Your task to perform on an android device: change text size in settings app Image 0: 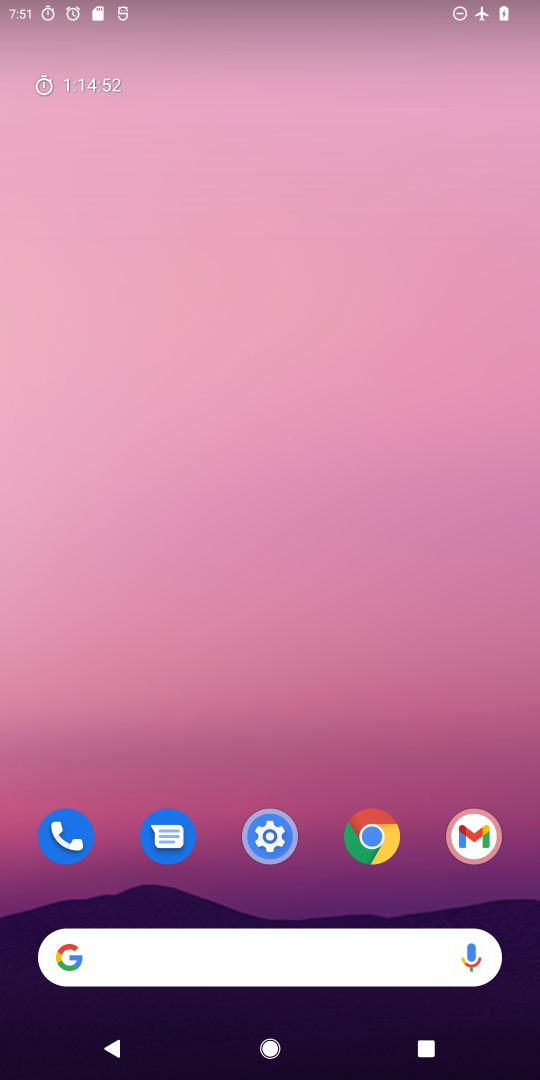
Step 0: drag from (334, 903) to (347, 193)
Your task to perform on an android device: change text size in settings app Image 1: 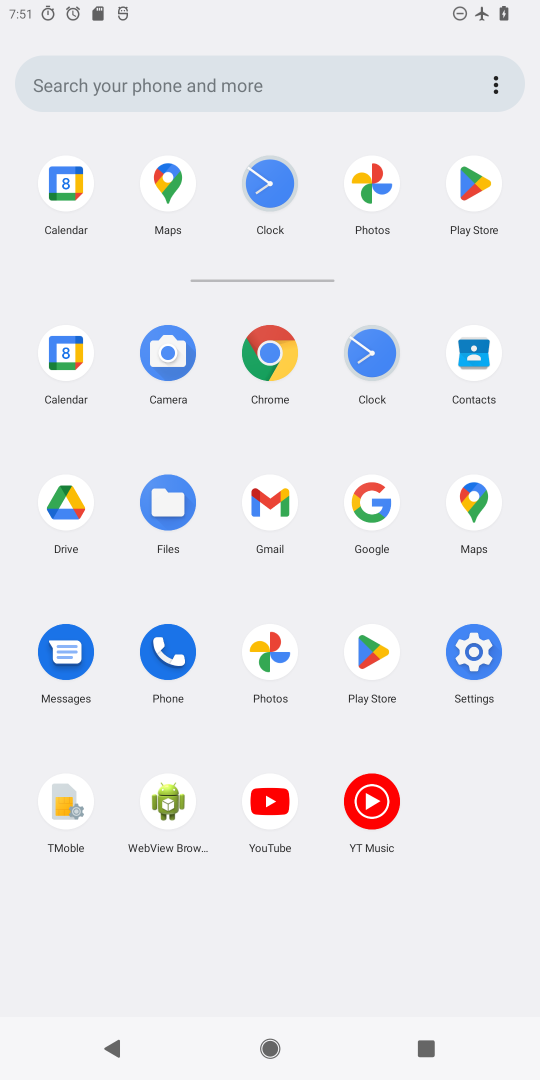
Step 1: click (463, 673)
Your task to perform on an android device: change text size in settings app Image 2: 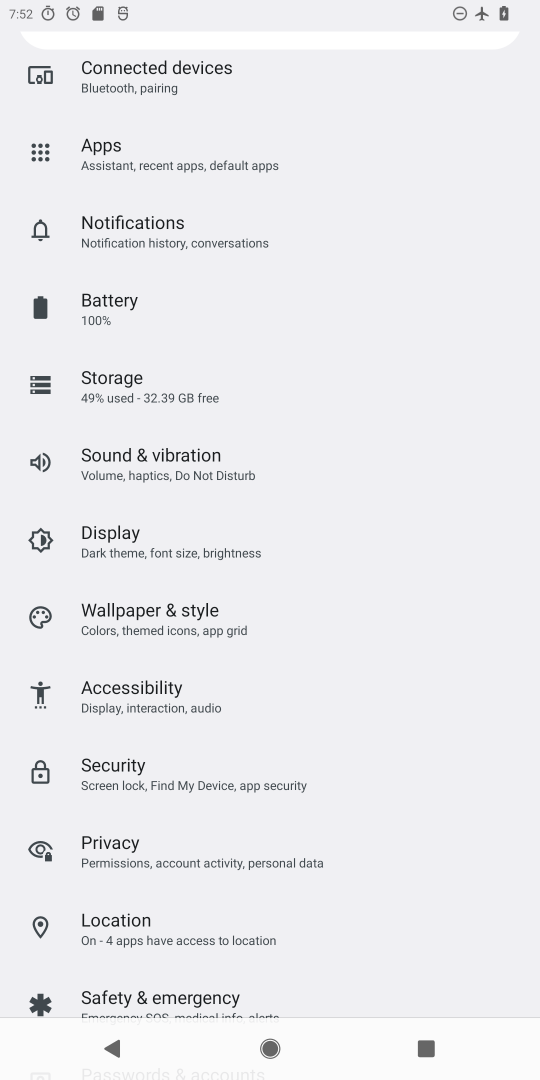
Step 2: click (191, 550)
Your task to perform on an android device: change text size in settings app Image 3: 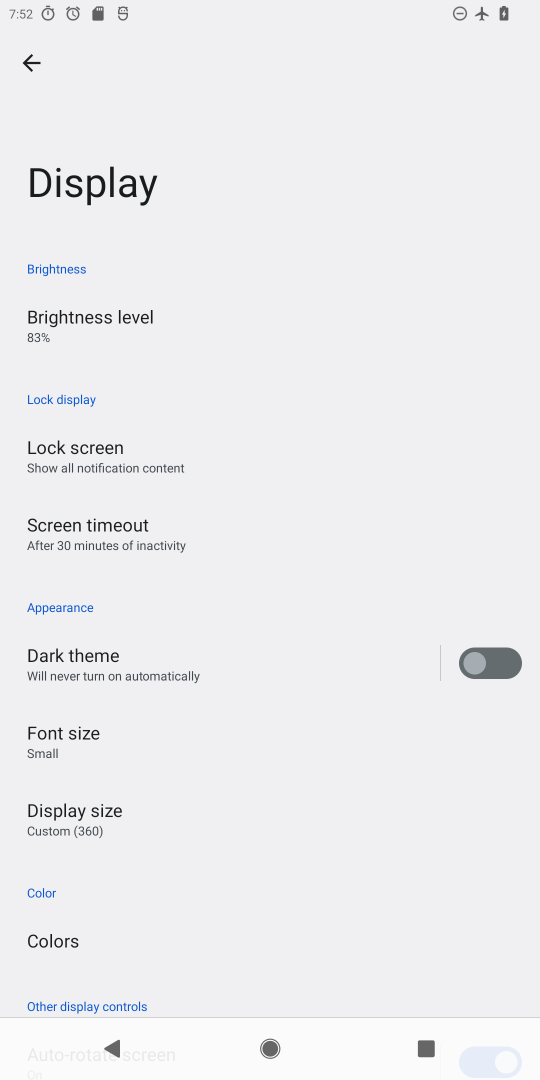
Step 3: click (138, 747)
Your task to perform on an android device: change text size in settings app Image 4: 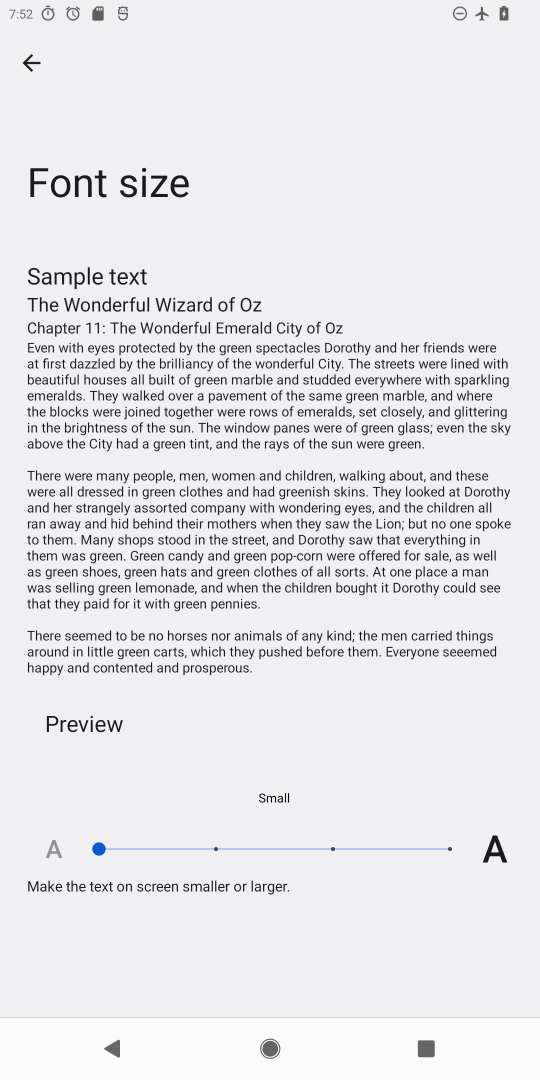
Step 4: click (213, 853)
Your task to perform on an android device: change text size in settings app Image 5: 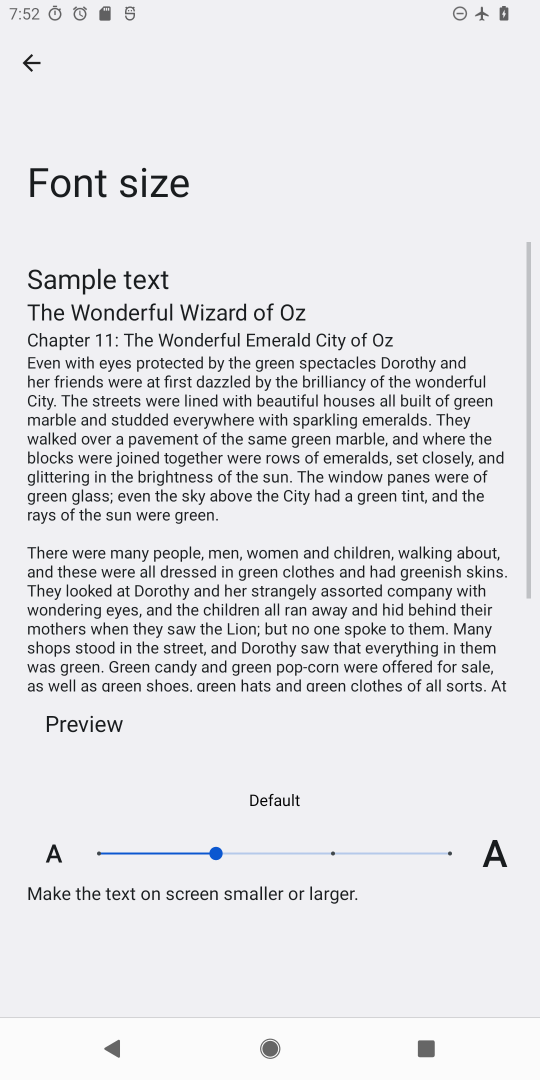
Step 5: task complete